Your task to perform on an android device: turn off location history Image 0: 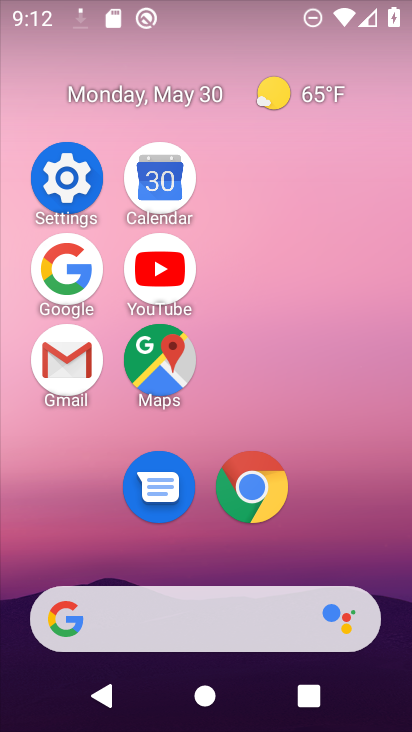
Step 0: click (78, 177)
Your task to perform on an android device: turn off location history Image 1: 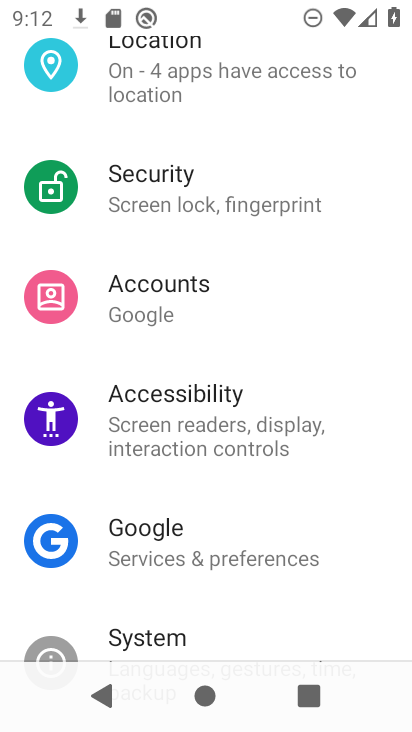
Step 1: drag from (312, 263) to (300, 550)
Your task to perform on an android device: turn off location history Image 2: 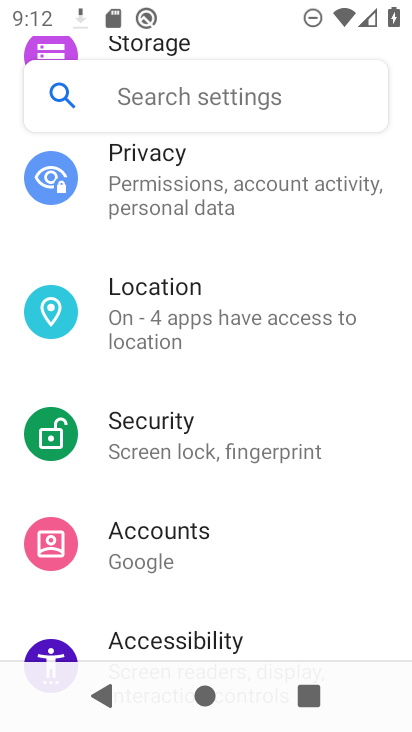
Step 2: click (248, 322)
Your task to perform on an android device: turn off location history Image 3: 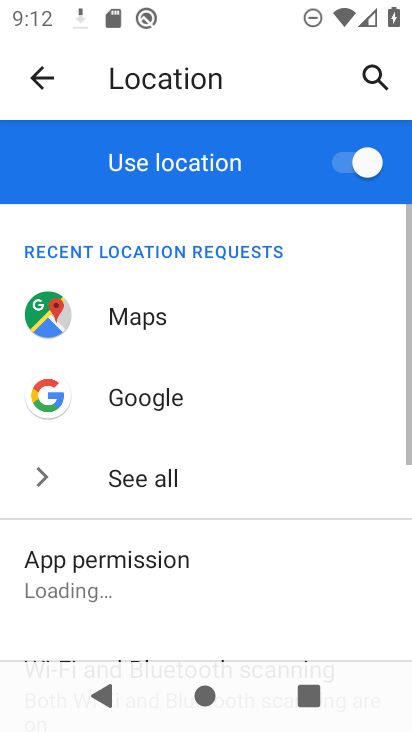
Step 3: drag from (261, 588) to (207, 188)
Your task to perform on an android device: turn off location history Image 4: 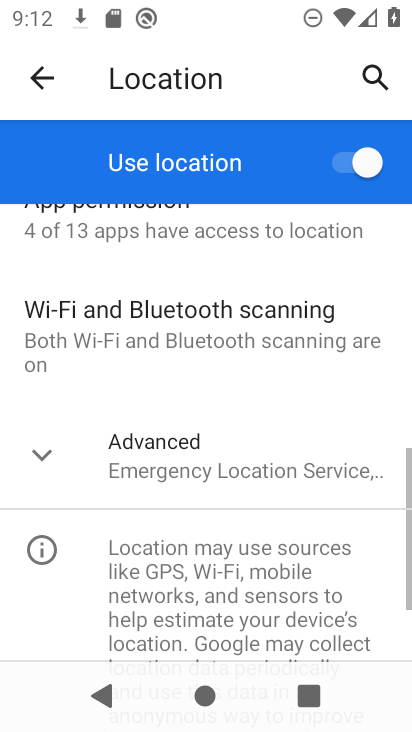
Step 4: click (175, 426)
Your task to perform on an android device: turn off location history Image 5: 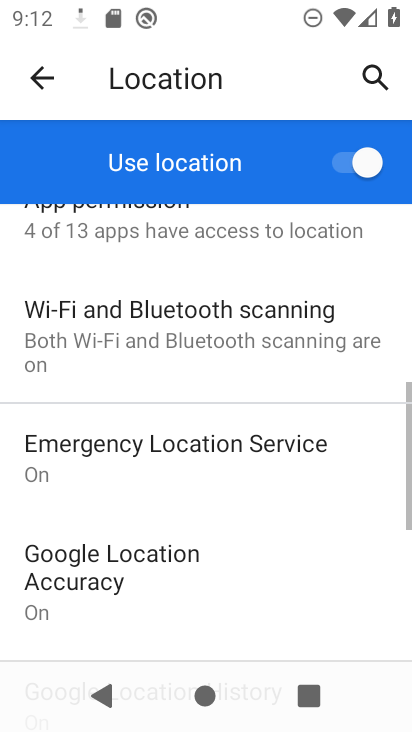
Step 5: drag from (180, 564) to (147, 229)
Your task to perform on an android device: turn off location history Image 6: 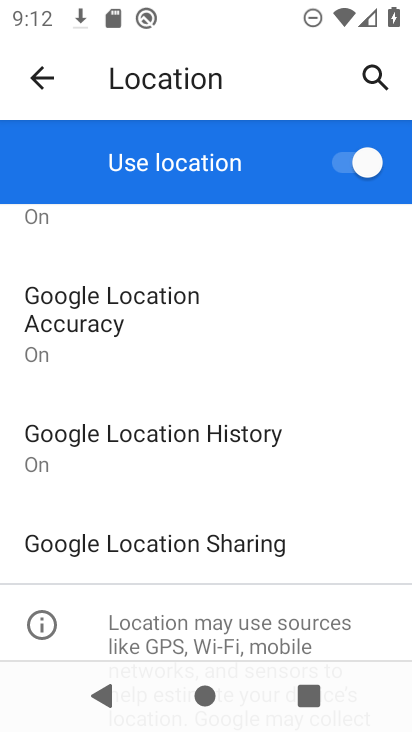
Step 6: click (191, 423)
Your task to perform on an android device: turn off location history Image 7: 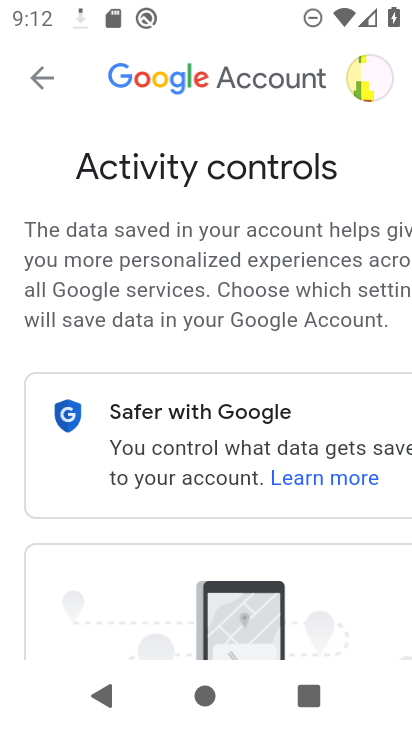
Step 7: task complete